Your task to perform on an android device: see sites visited before in the chrome app Image 0: 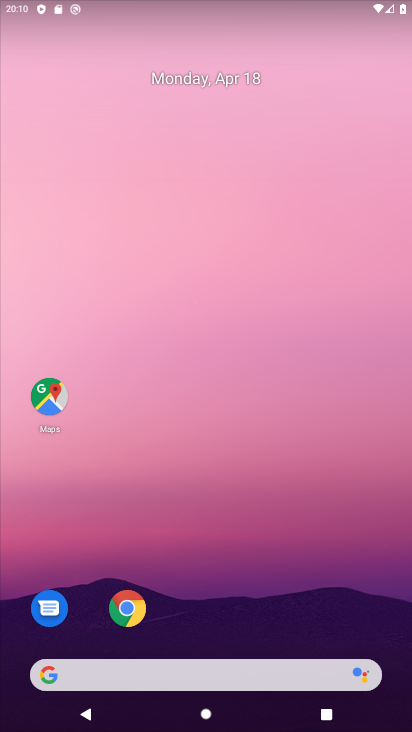
Step 0: click (124, 607)
Your task to perform on an android device: see sites visited before in the chrome app Image 1: 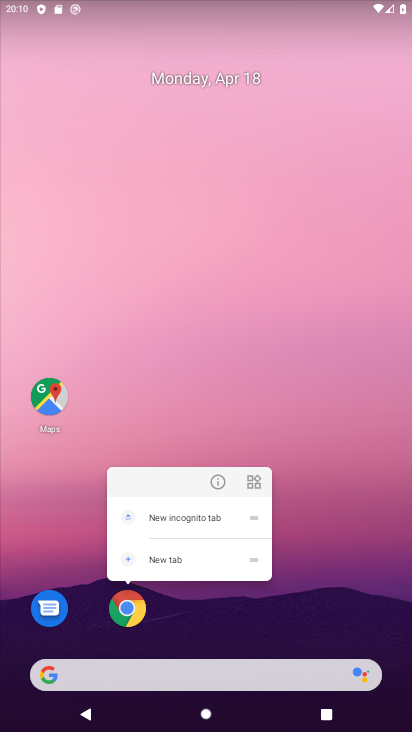
Step 1: click (185, 622)
Your task to perform on an android device: see sites visited before in the chrome app Image 2: 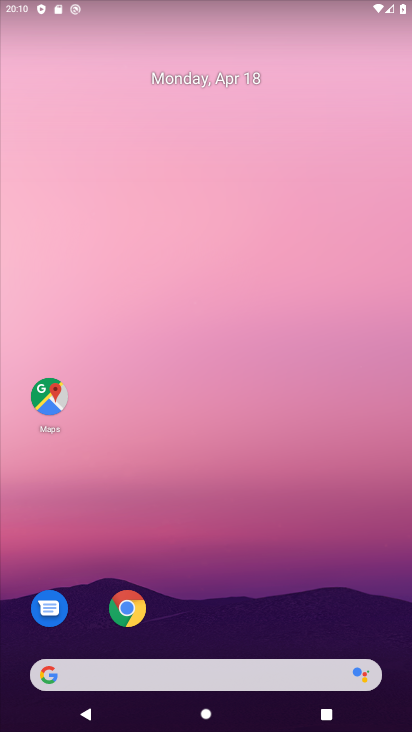
Step 2: click (127, 607)
Your task to perform on an android device: see sites visited before in the chrome app Image 3: 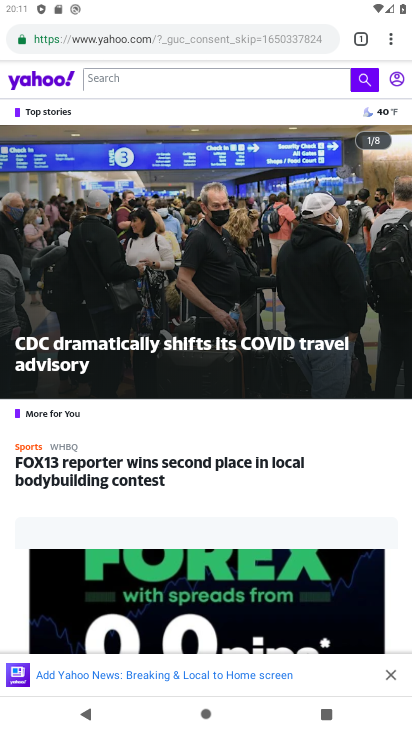
Step 3: click (392, 39)
Your task to perform on an android device: see sites visited before in the chrome app Image 4: 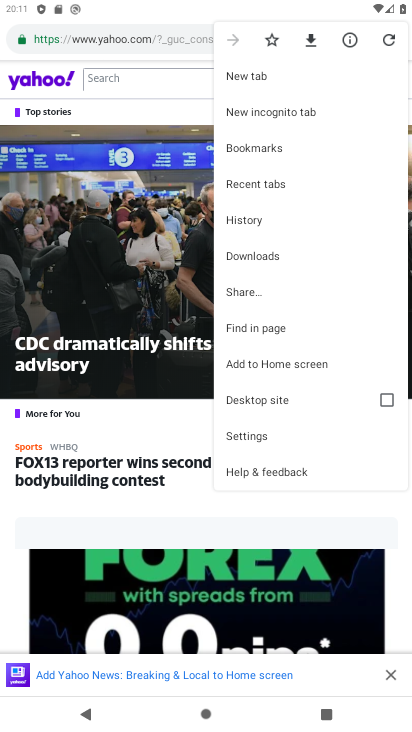
Step 4: click (278, 187)
Your task to perform on an android device: see sites visited before in the chrome app Image 5: 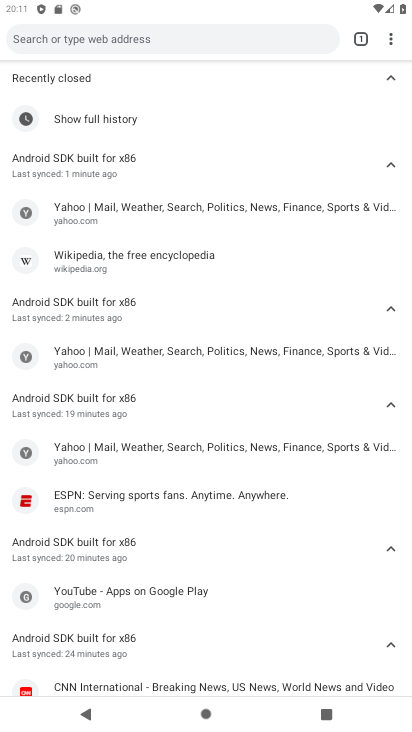
Step 5: task complete